Your task to perform on an android device: Go to accessibility settings Image 0: 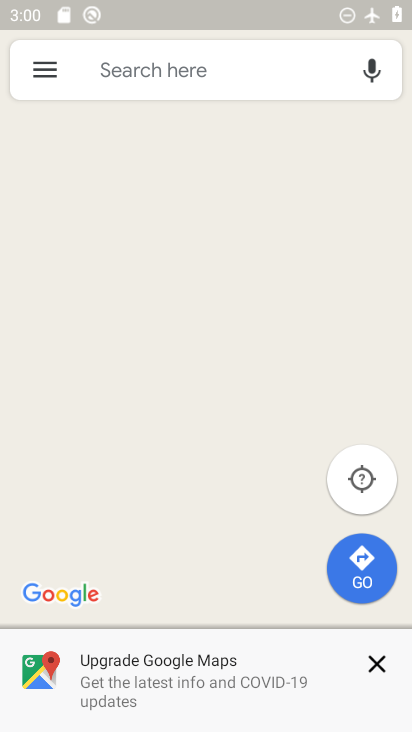
Step 0: press home button
Your task to perform on an android device: Go to accessibility settings Image 1: 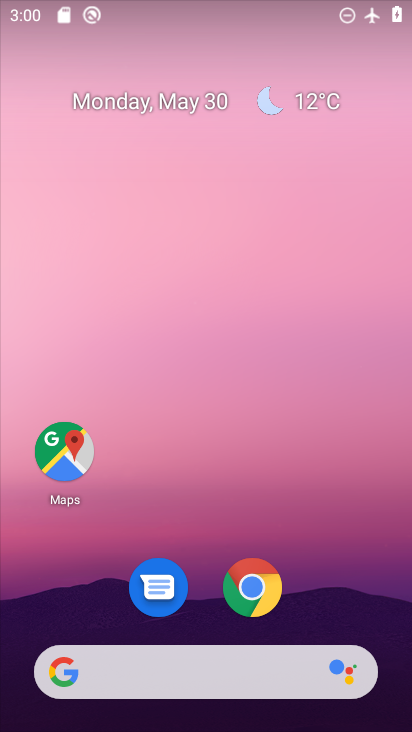
Step 1: drag from (202, 576) to (234, 192)
Your task to perform on an android device: Go to accessibility settings Image 2: 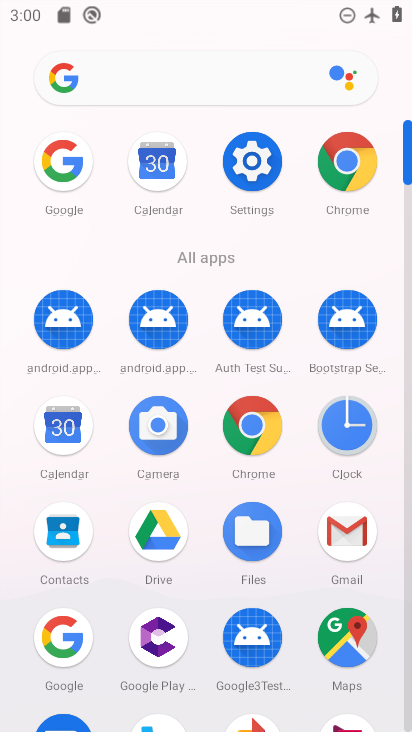
Step 2: click (262, 159)
Your task to perform on an android device: Go to accessibility settings Image 3: 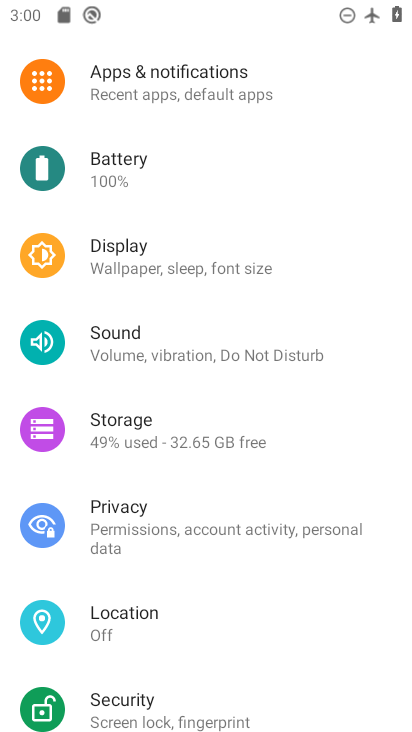
Step 3: drag from (214, 624) to (288, 253)
Your task to perform on an android device: Go to accessibility settings Image 4: 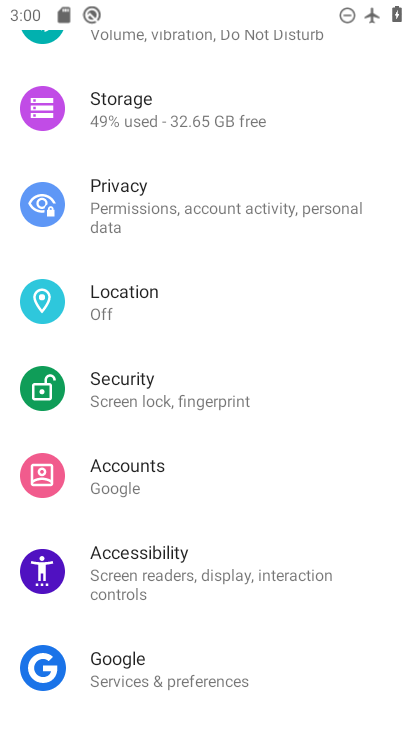
Step 4: click (173, 568)
Your task to perform on an android device: Go to accessibility settings Image 5: 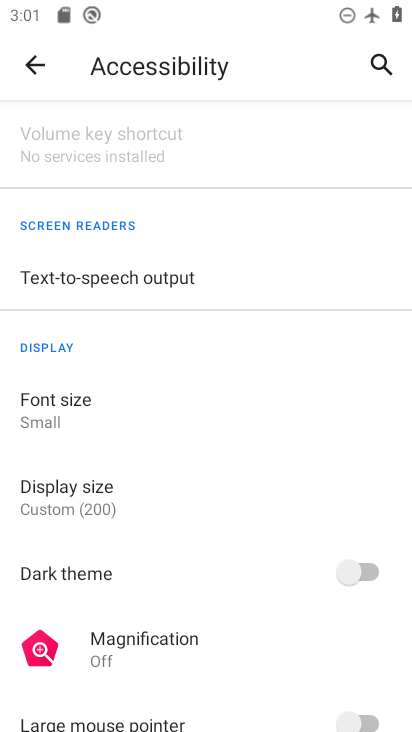
Step 5: task complete